Your task to perform on an android device: Open Chrome and go to settings Image 0: 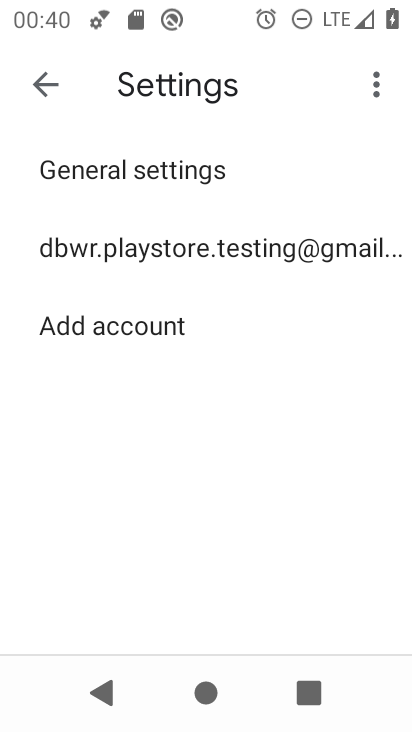
Step 0: press home button
Your task to perform on an android device: Open Chrome and go to settings Image 1: 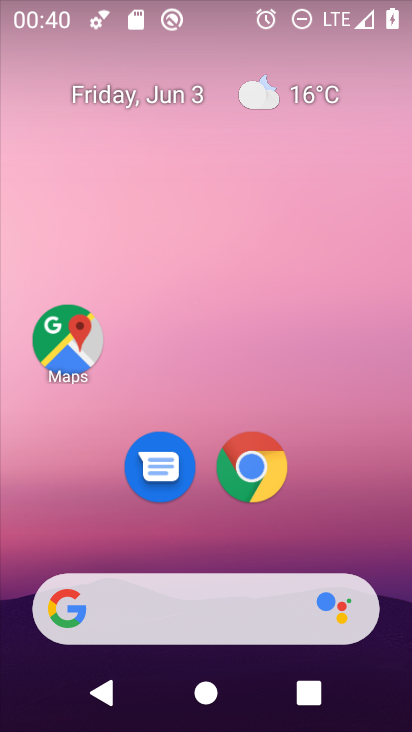
Step 1: click (249, 466)
Your task to perform on an android device: Open Chrome and go to settings Image 2: 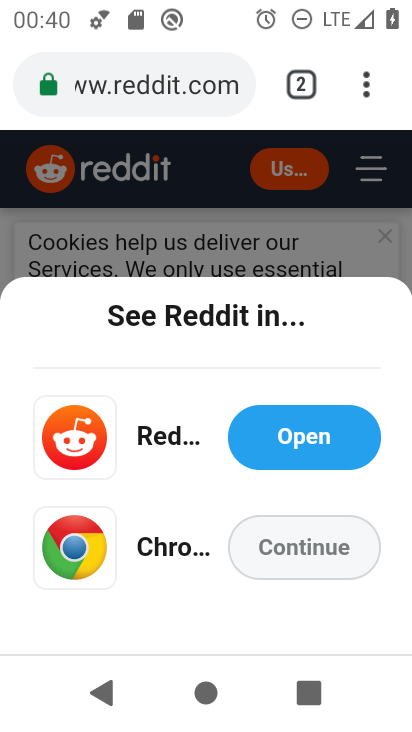
Step 2: click (360, 94)
Your task to perform on an android device: Open Chrome and go to settings Image 3: 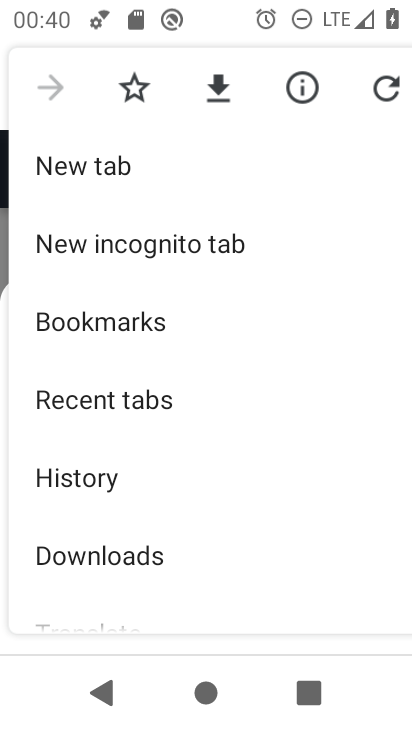
Step 3: drag from (183, 559) to (229, 354)
Your task to perform on an android device: Open Chrome and go to settings Image 4: 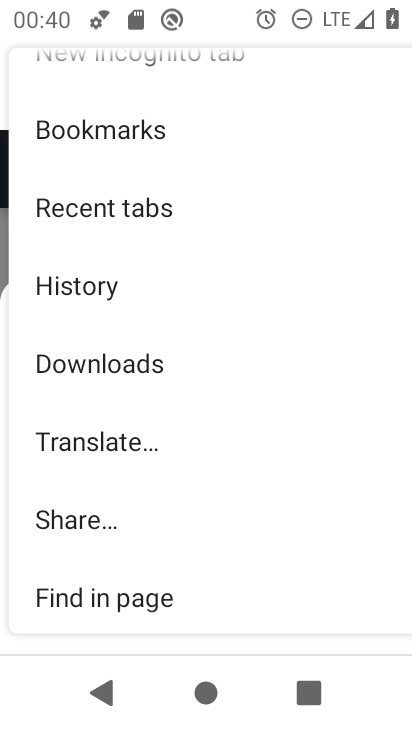
Step 4: drag from (182, 561) to (208, 314)
Your task to perform on an android device: Open Chrome and go to settings Image 5: 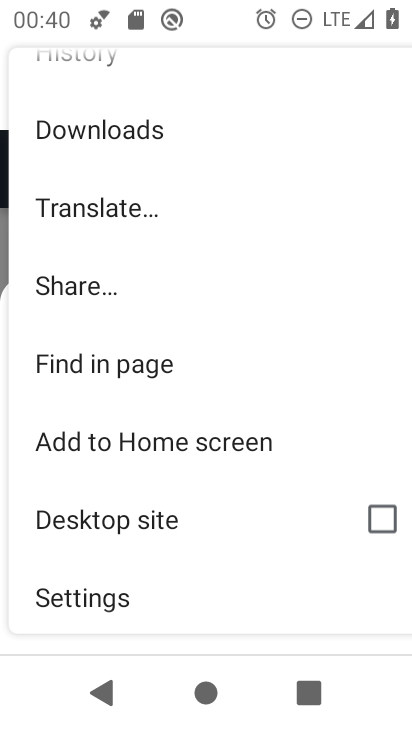
Step 5: click (66, 591)
Your task to perform on an android device: Open Chrome and go to settings Image 6: 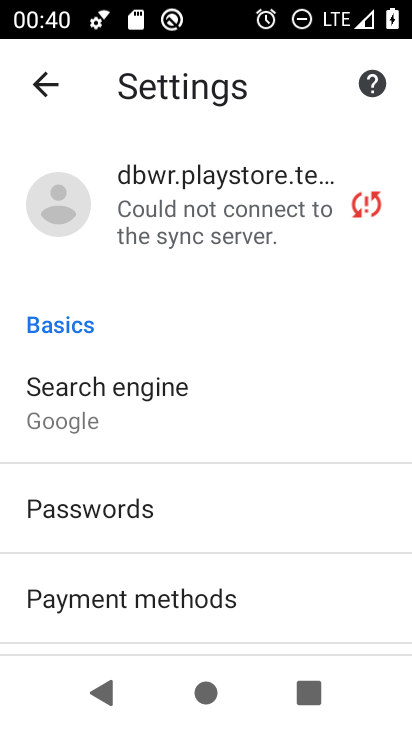
Step 6: task complete